Your task to perform on an android device: toggle translation in the chrome app Image 0: 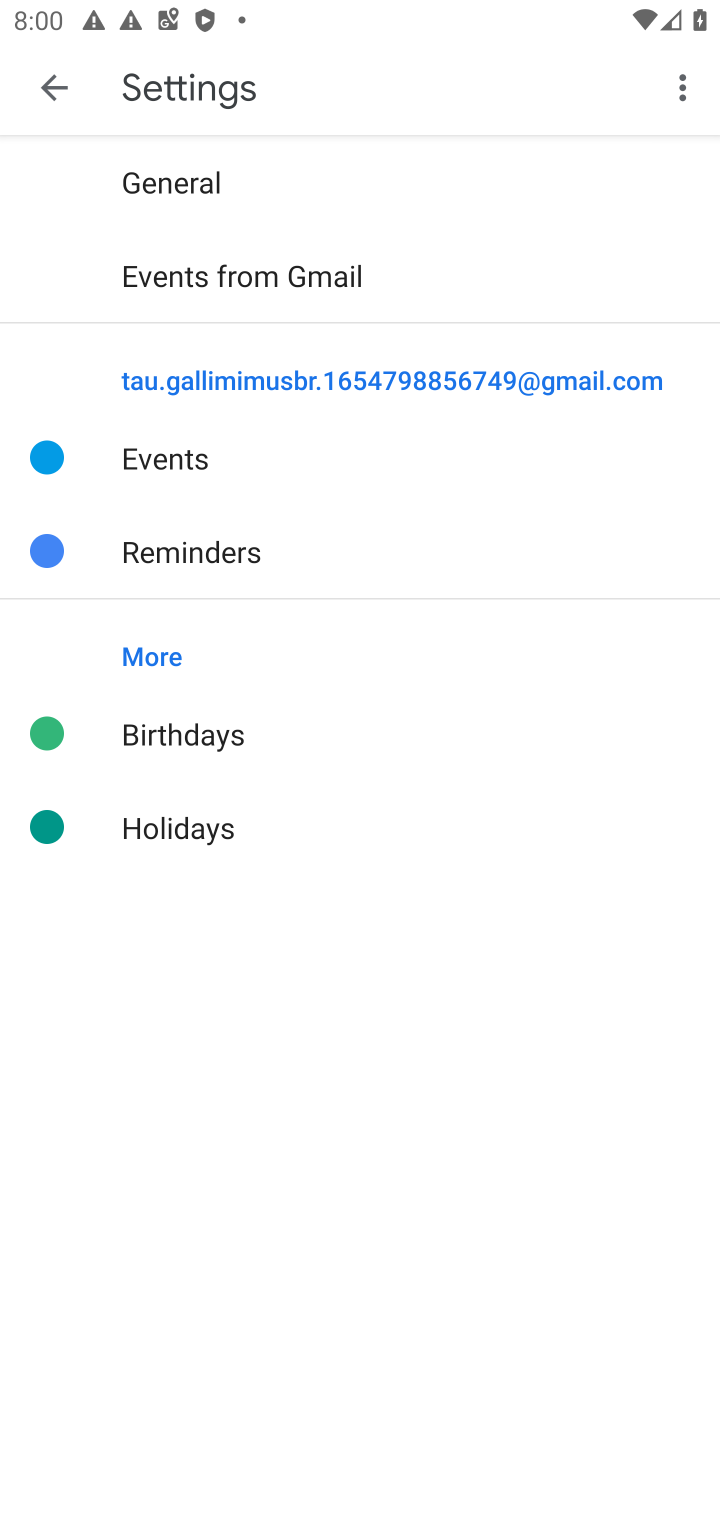
Step 0: press home button
Your task to perform on an android device: toggle translation in the chrome app Image 1: 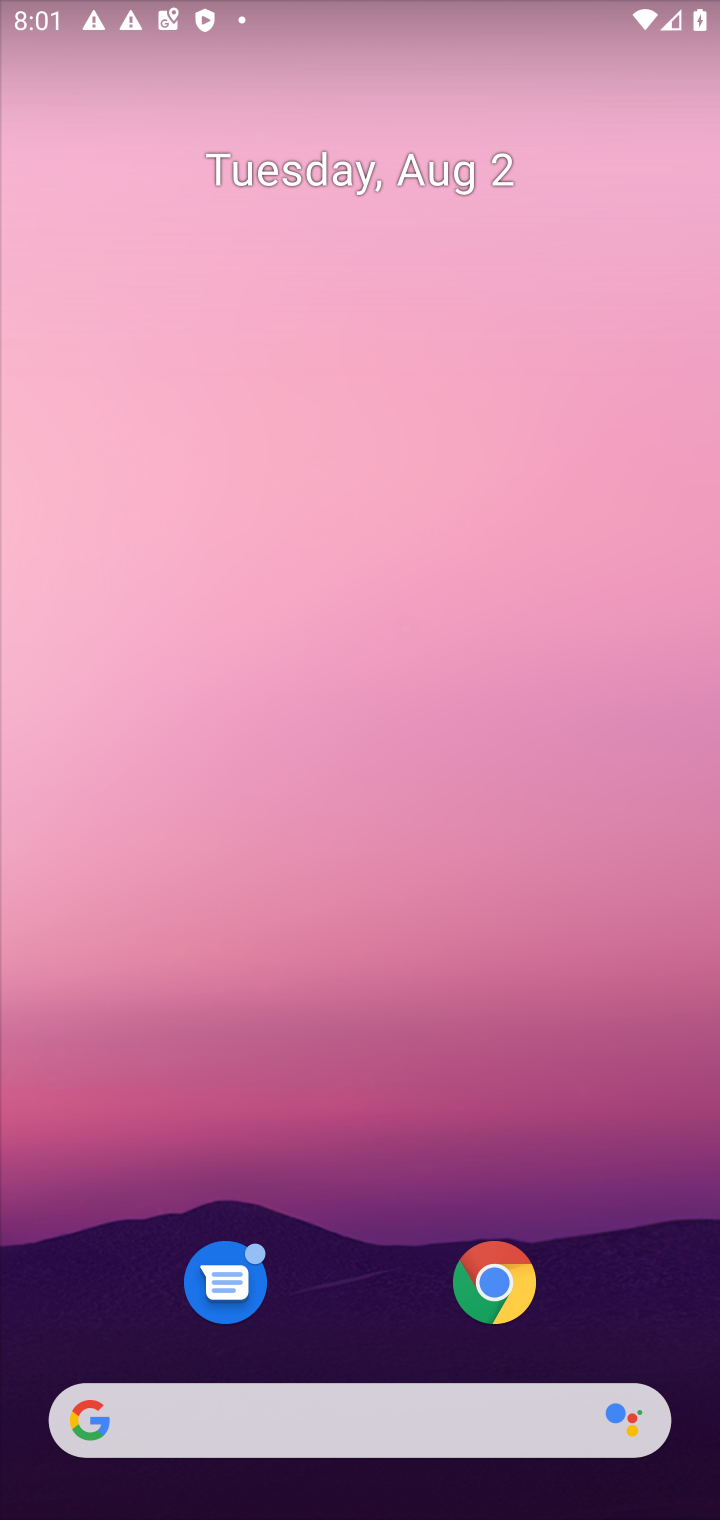
Step 1: drag from (498, 1349) to (488, 45)
Your task to perform on an android device: toggle translation in the chrome app Image 2: 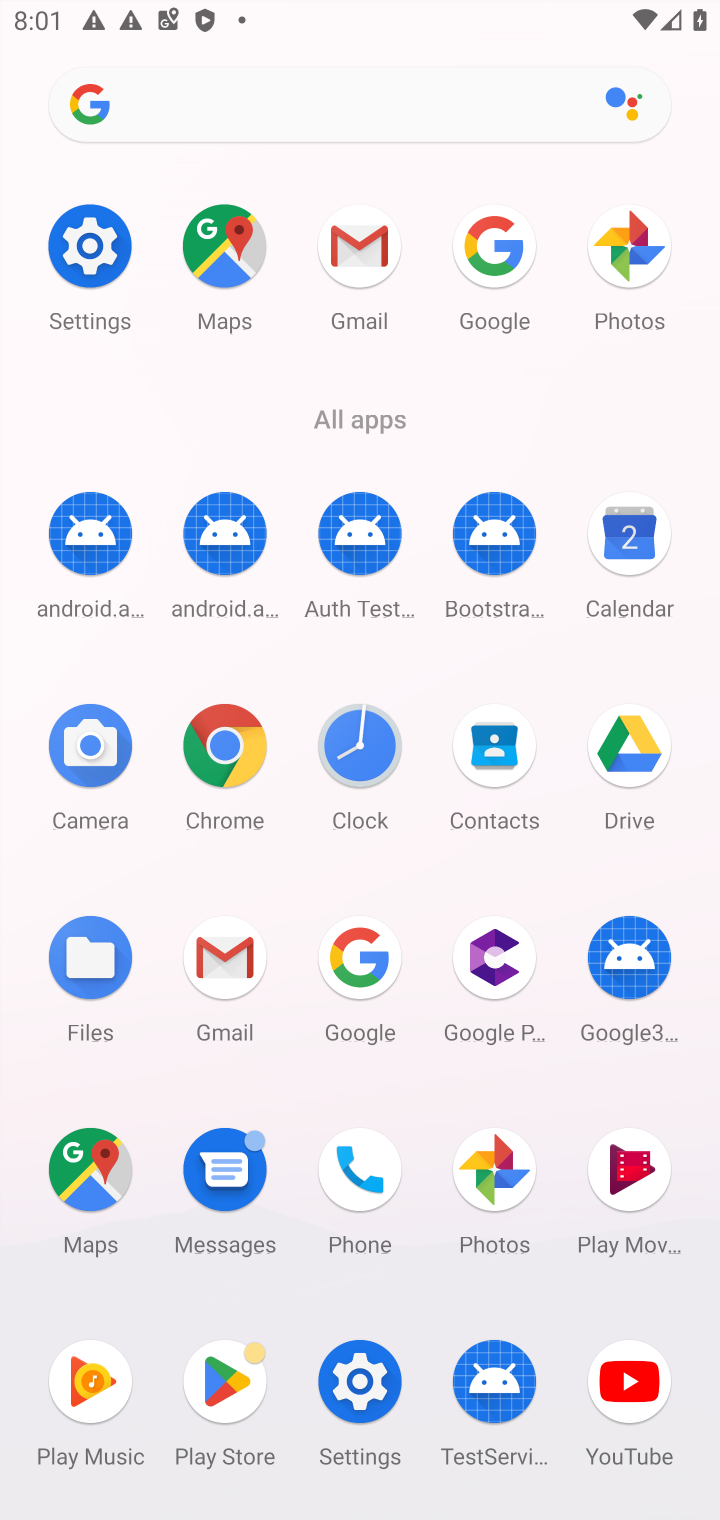
Step 2: click (212, 743)
Your task to perform on an android device: toggle translation in the chrome app Image 3: 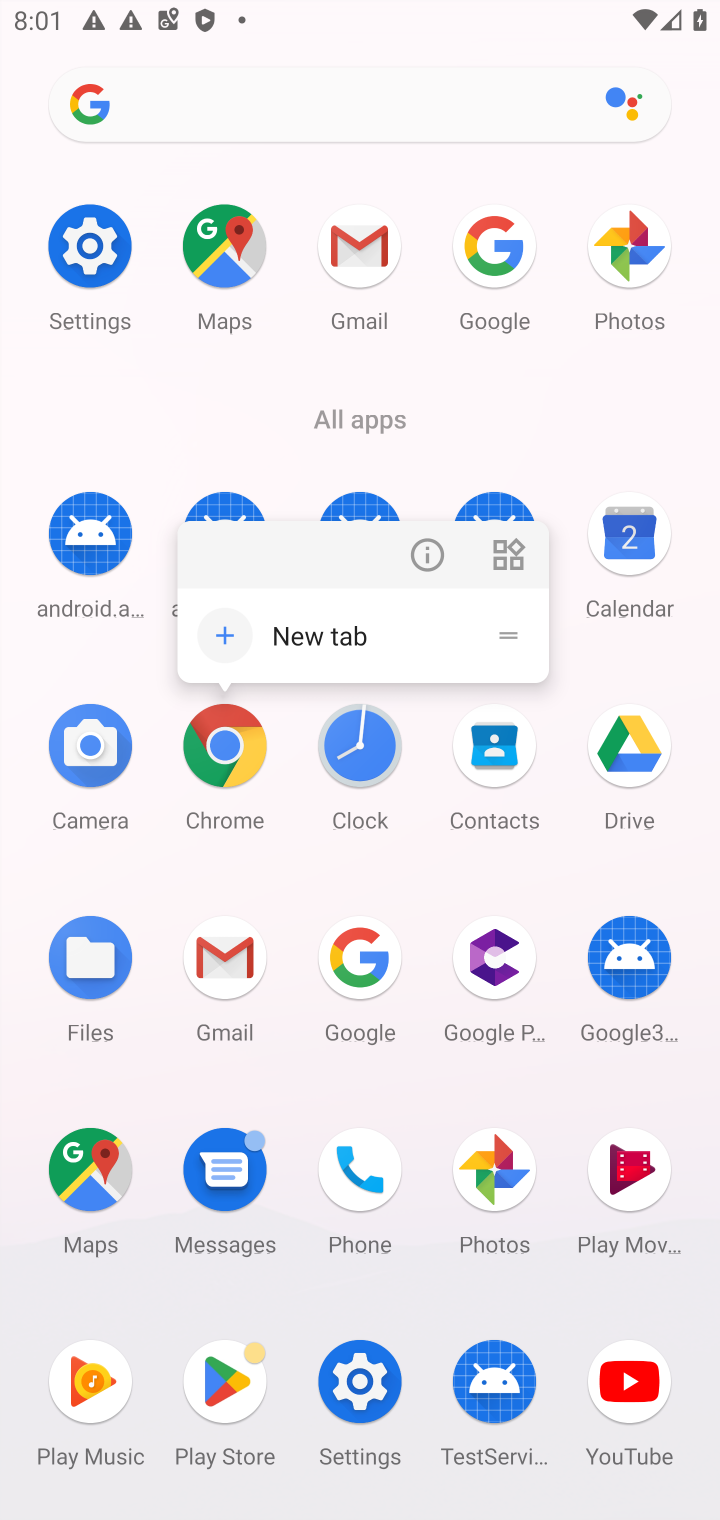
Step 3: click (212, 779)
Your task to perform on an android device: toggle translation in the chrome app Image 4: 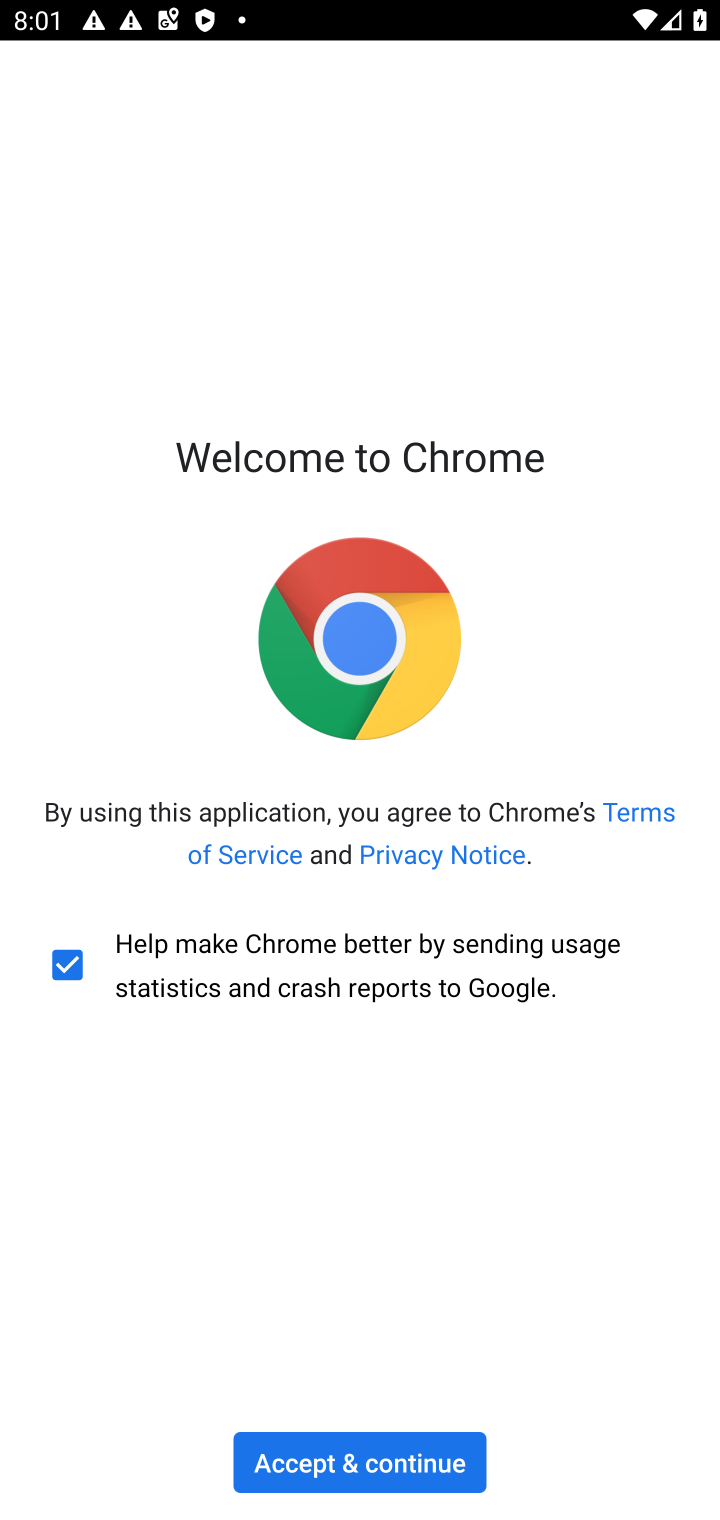
Step 4: click (429, 1467)
Your task to perform on an android device: toggle translation in the chrome app Image 5: 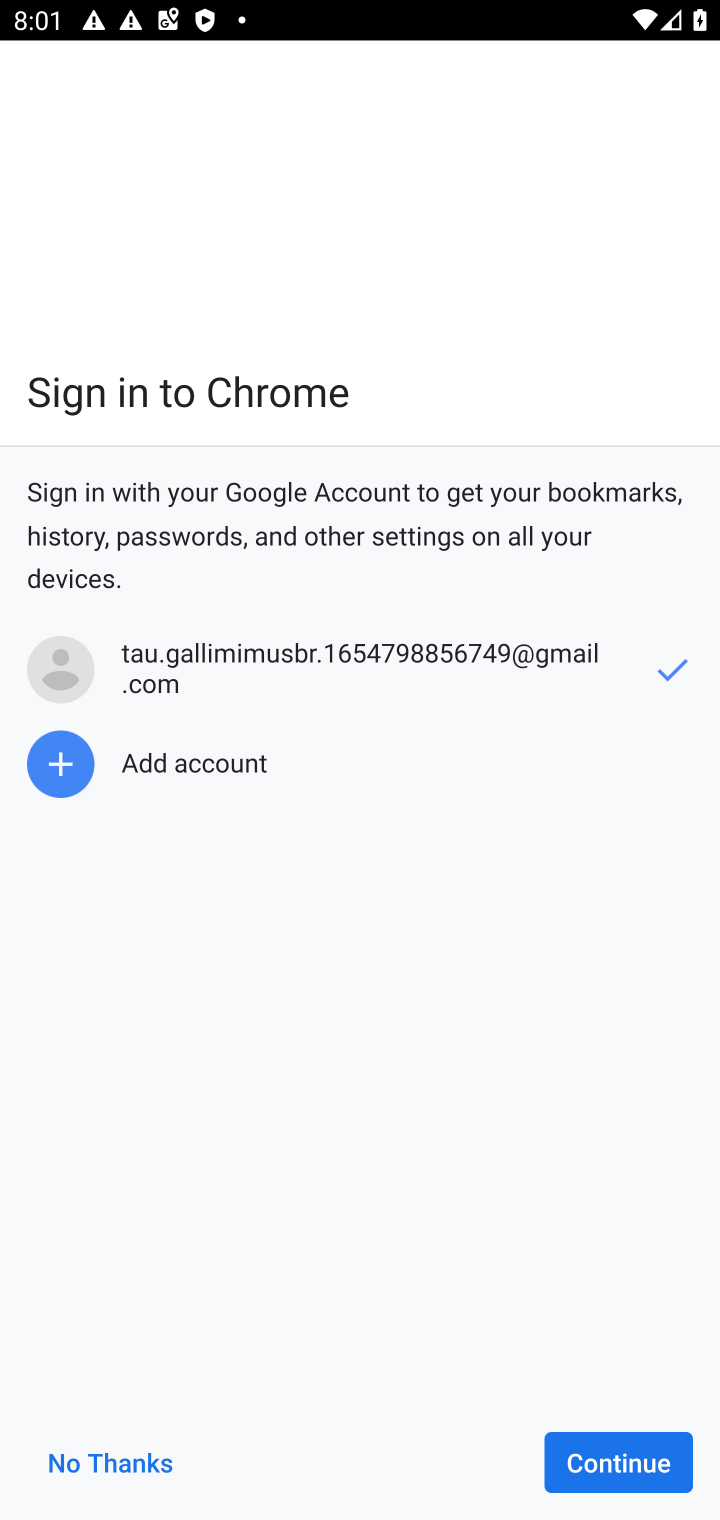
Step 5: click (596, 1449)
Your task to perform on an android device: toggle translation in the chrome app Image 6: 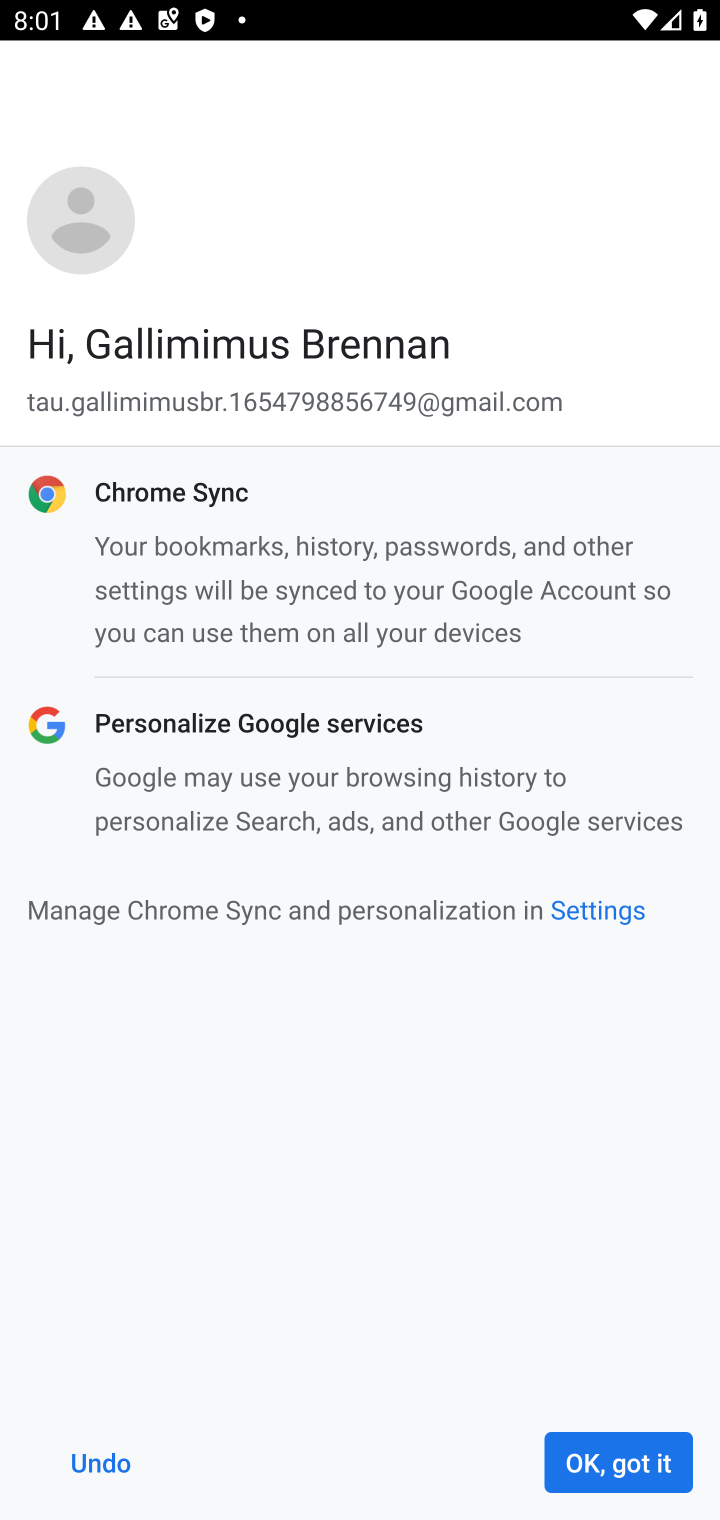
Step 6: click (549, 1471)
Your task to perform on an android device: toggle translation in the chrome app Image 7: 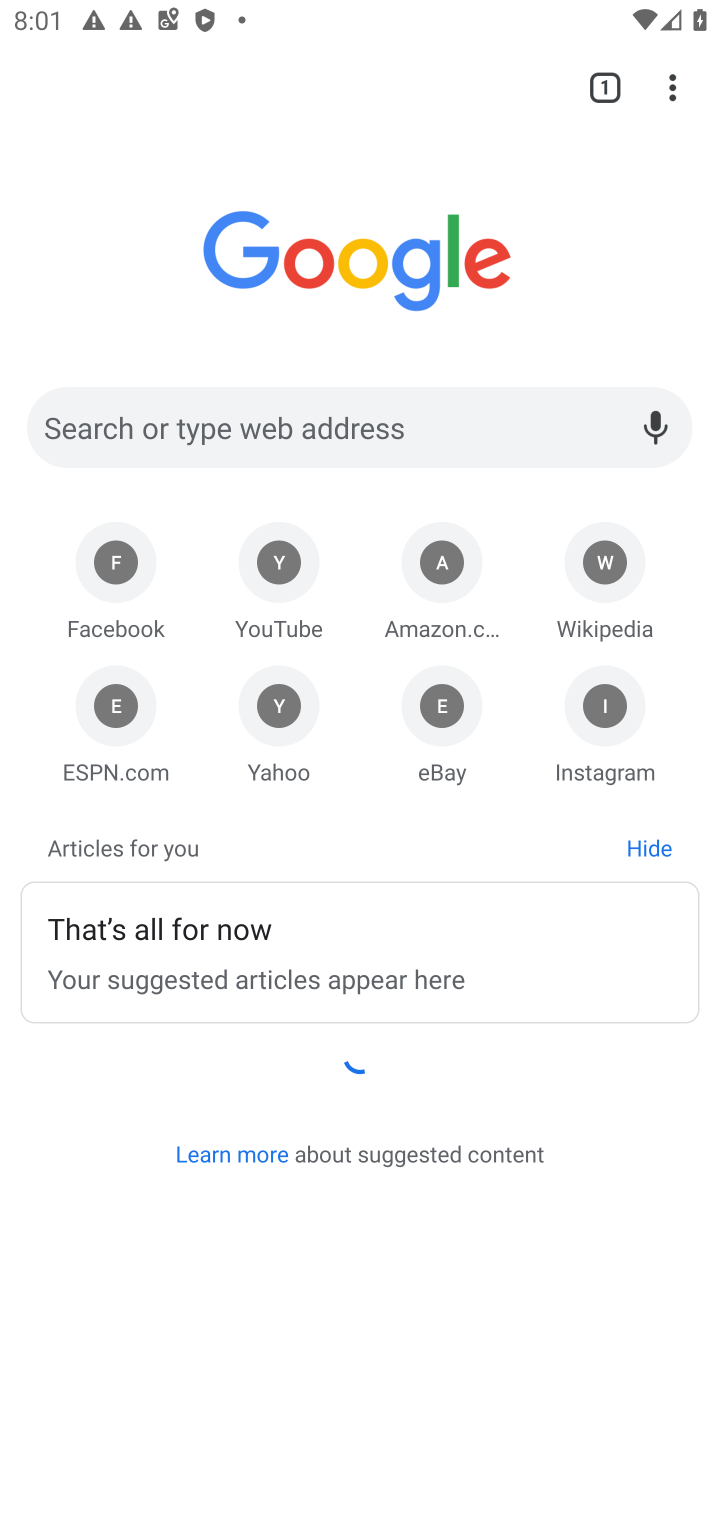
Step 7: drag from (673, 104) to (355, 736)
Your task to perform on an android device: toggle translation in the chrome app Image 8: 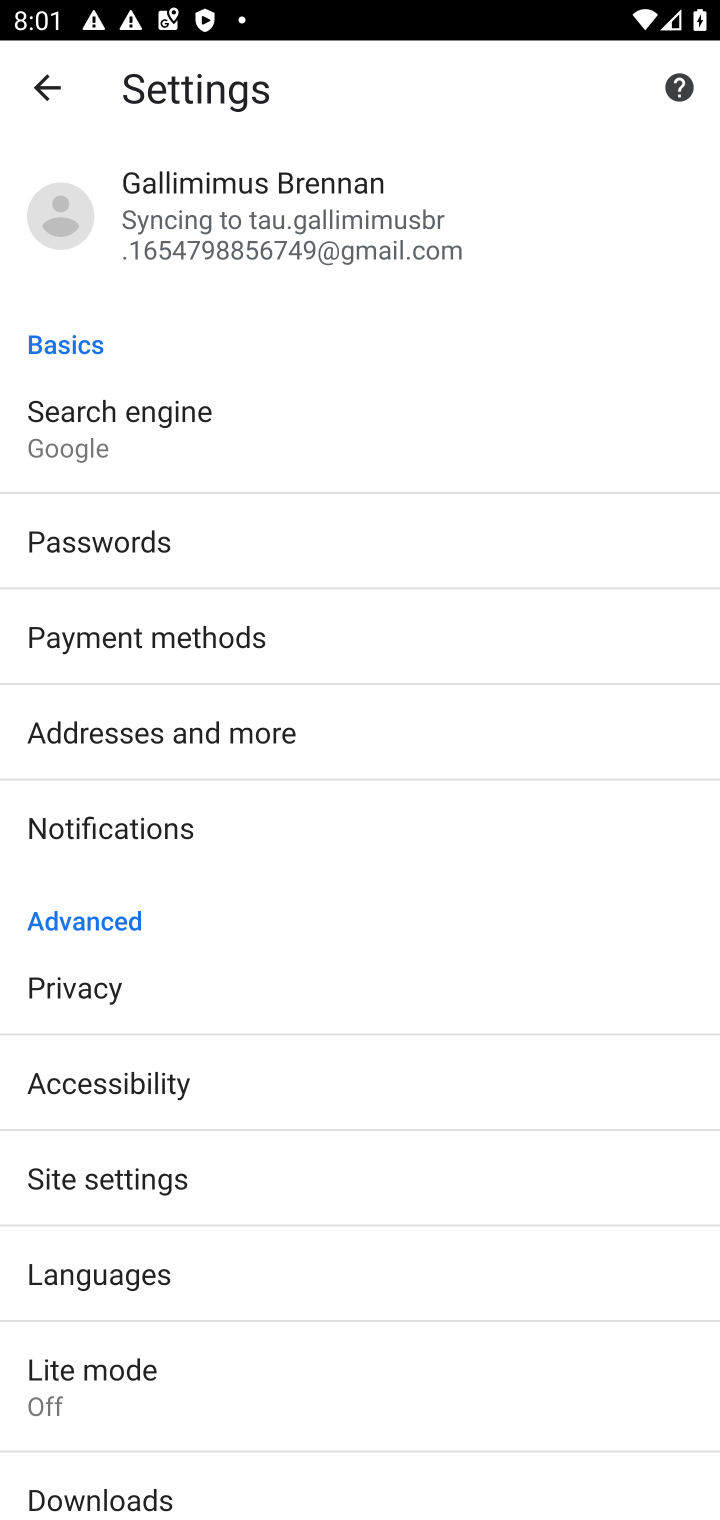
Step 8: click (151, 1268)
Your task to perform on an android device: toggle translation in the chrome app Image 9: 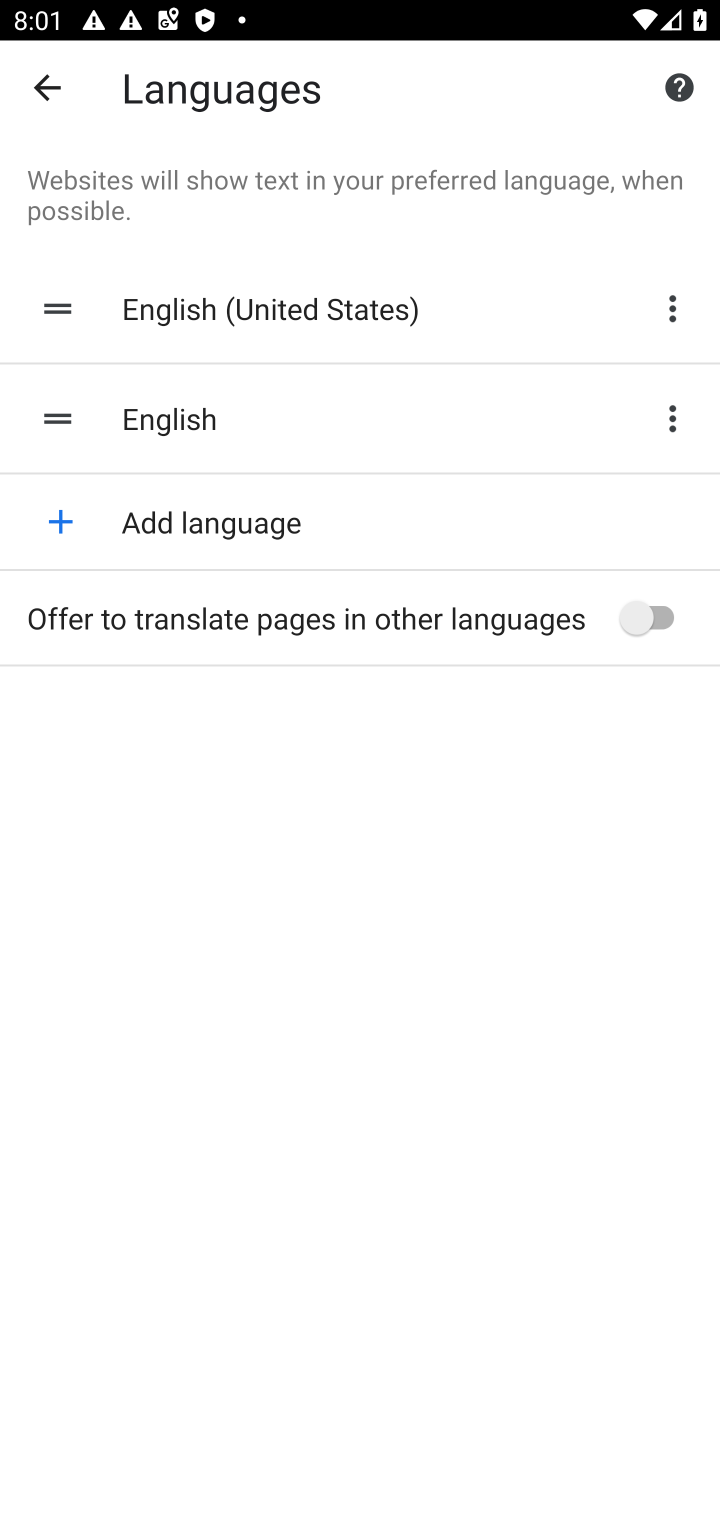
Step 9: click (655, 622)
Your task to perform on an android device: toggle translation in the chrome app Image 10: 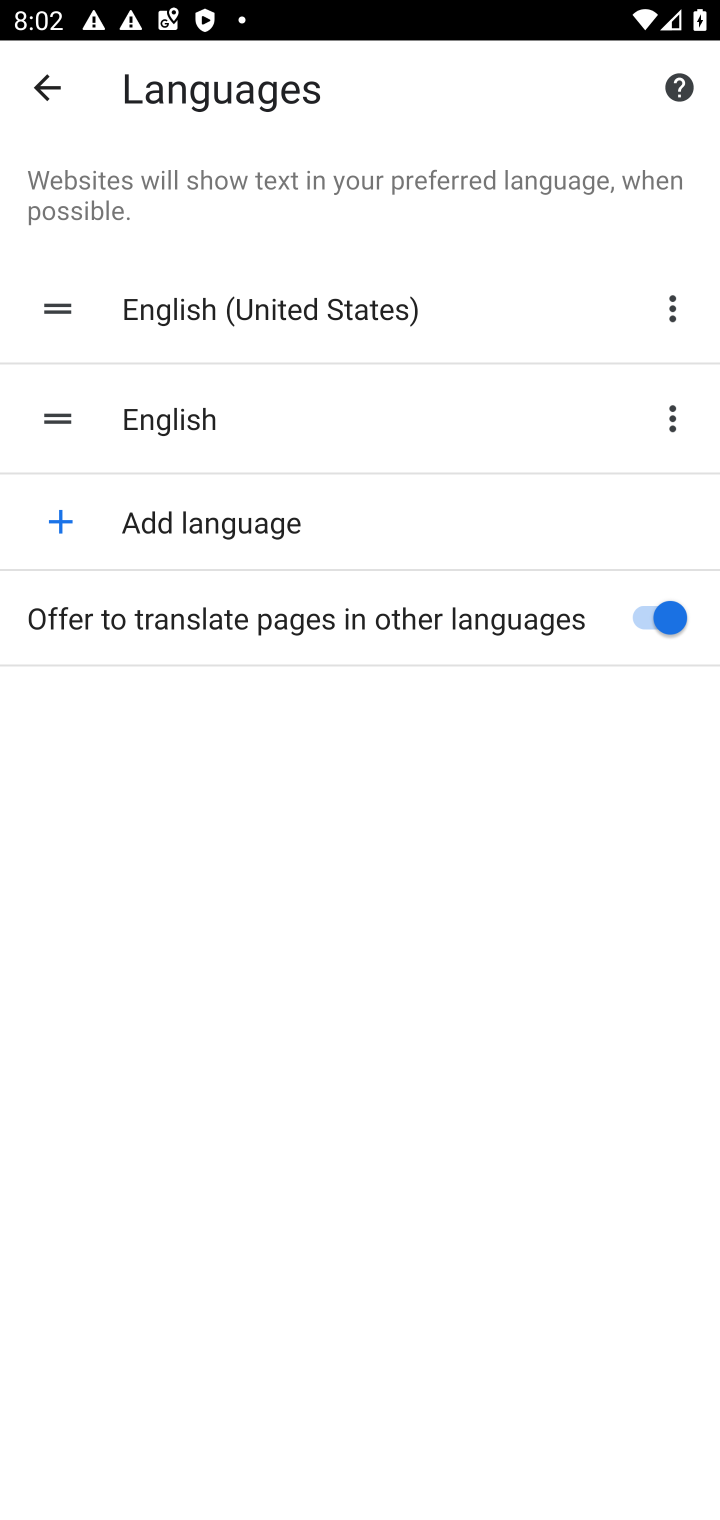
Step 10: task complete